Your task to perform on an android device: Open calendar and show me the fourth week of next month Image 0: 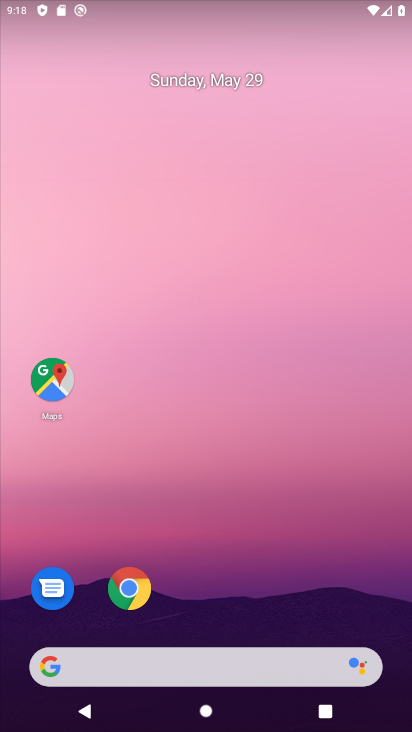
Step 0: click (26, 600)
Your task to perform on an android device: Open calendar and show me the fourth week of next month Image 1: 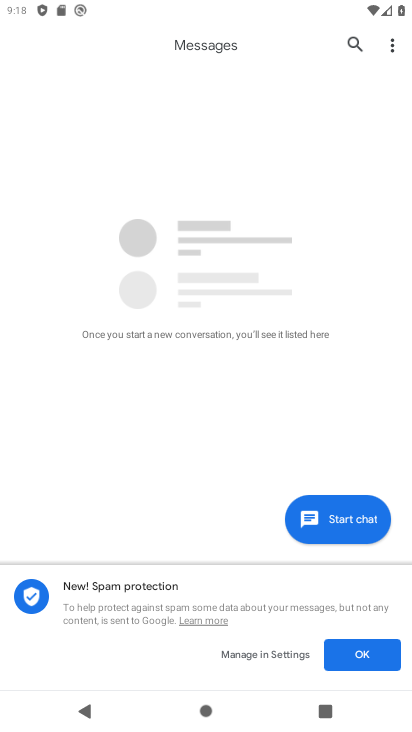
Step 1: drag from (15, 578) to (222, 78)
Your task to perform on an android device: Open calendar and show me the fourth week of next month Image 2: 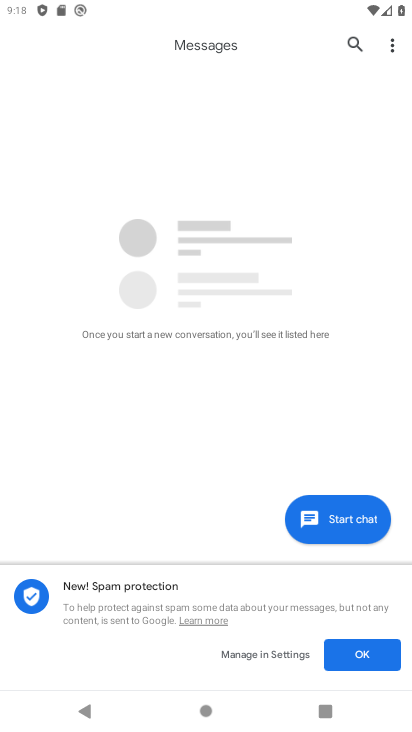
Step 2: press home button
Your task to perform on an android device: Open calendar and show me the fourth week of next month Image 3: 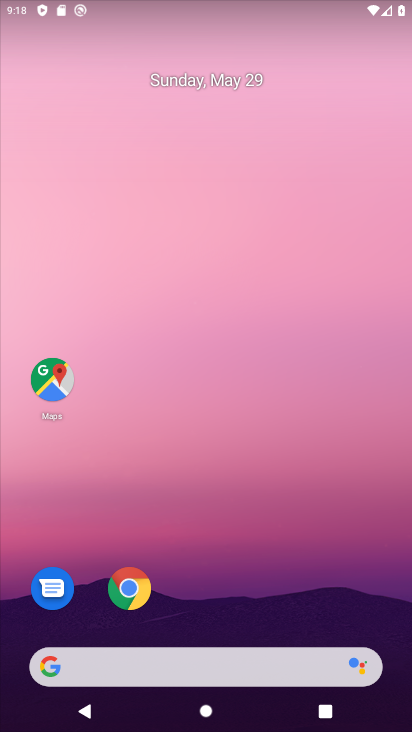
Step 3: drag from (22, 564) to (241, 93)
Your task to perform on an android device: Open calendar and show me the fourth week of next month Image 4: 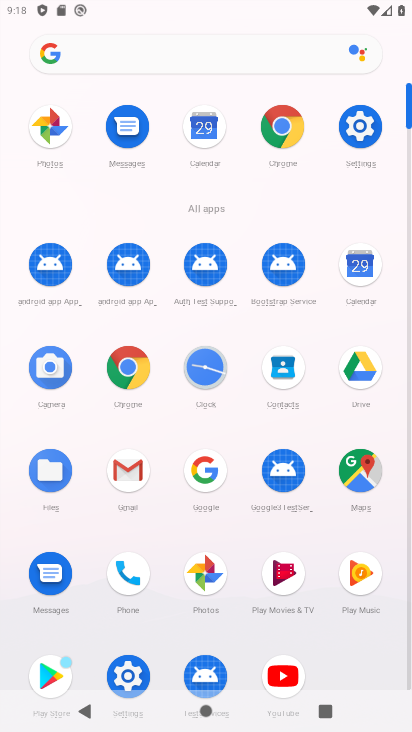
Step 4: click (363, 280)
Your task to perform on an android device: Open calendar and show me the fourth week of next month Image 5: 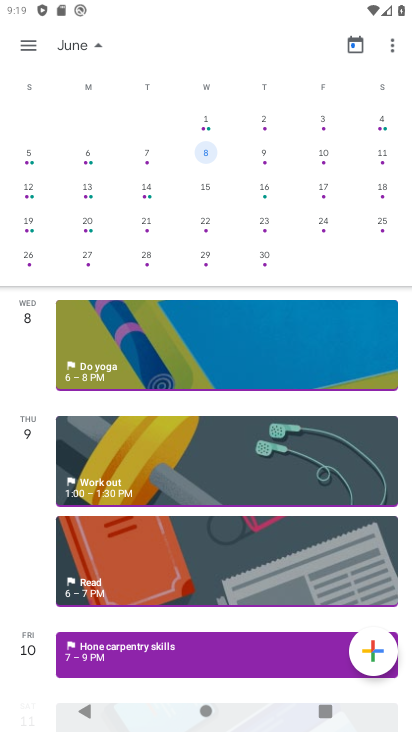
Step 5: click (192, 215)
Your task to perform on an android device: Open calendar and show me the fourth week of next month Image 6: 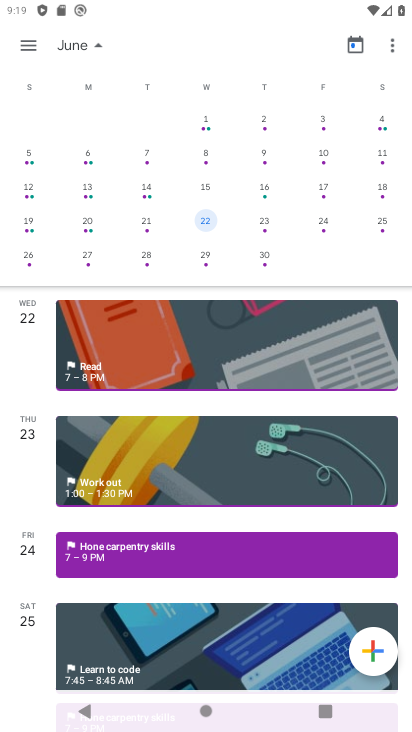
Step 6: click (200, 195)
Your task to perform on an android device: Open calendar and show me the fourth week of next month Image 7: 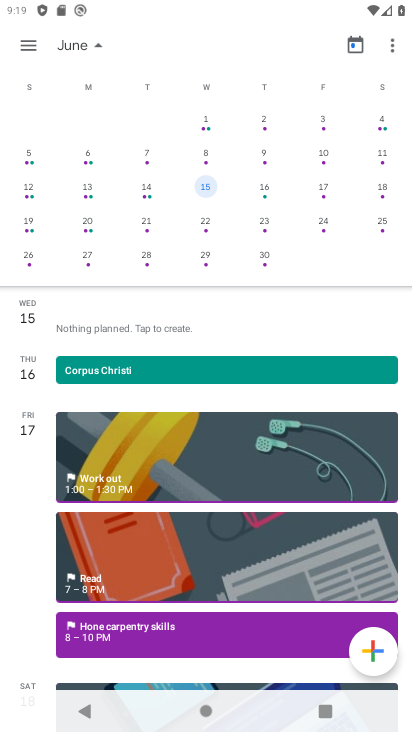
Step 7: click (207, 222)
Your task to perform on an android device: Open calendar and show me the fourth week of next month Image 8: 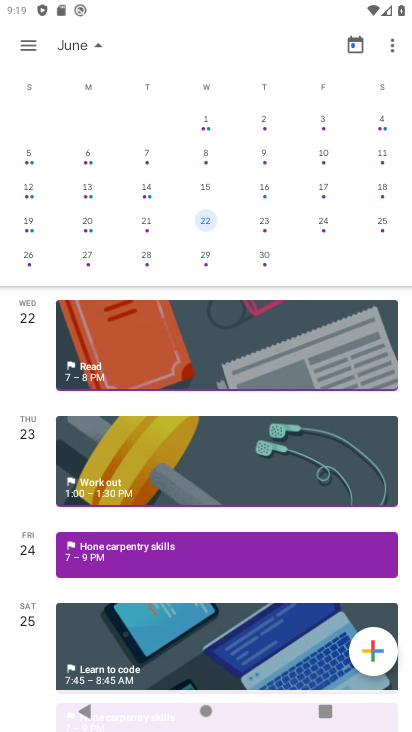
Step 8: task complete